Your task to perform on an android device: open app "Google Sheets" (install if not already installed) Image 0: 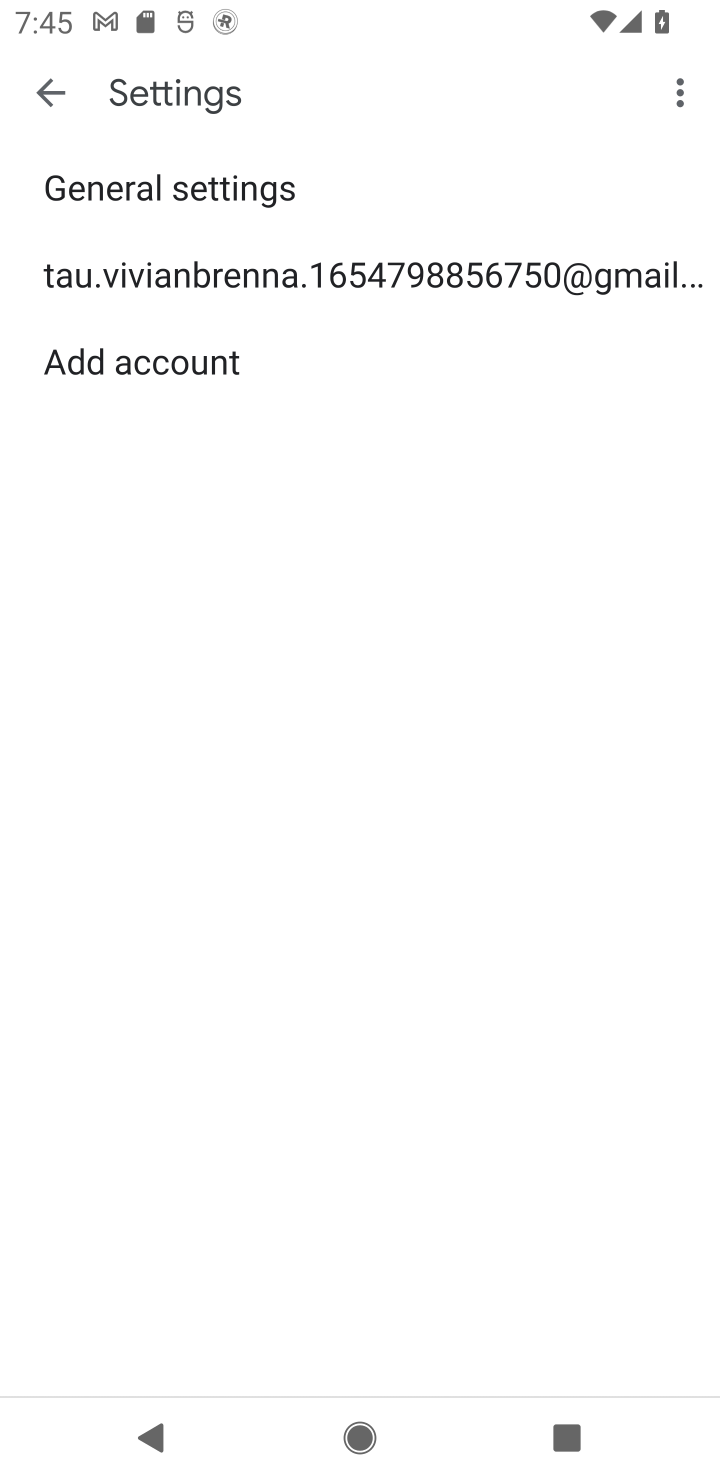
Step 0: press home button
Your task to perform on an android device: open app "Google Sheets" (install if not already installed) Image 1: 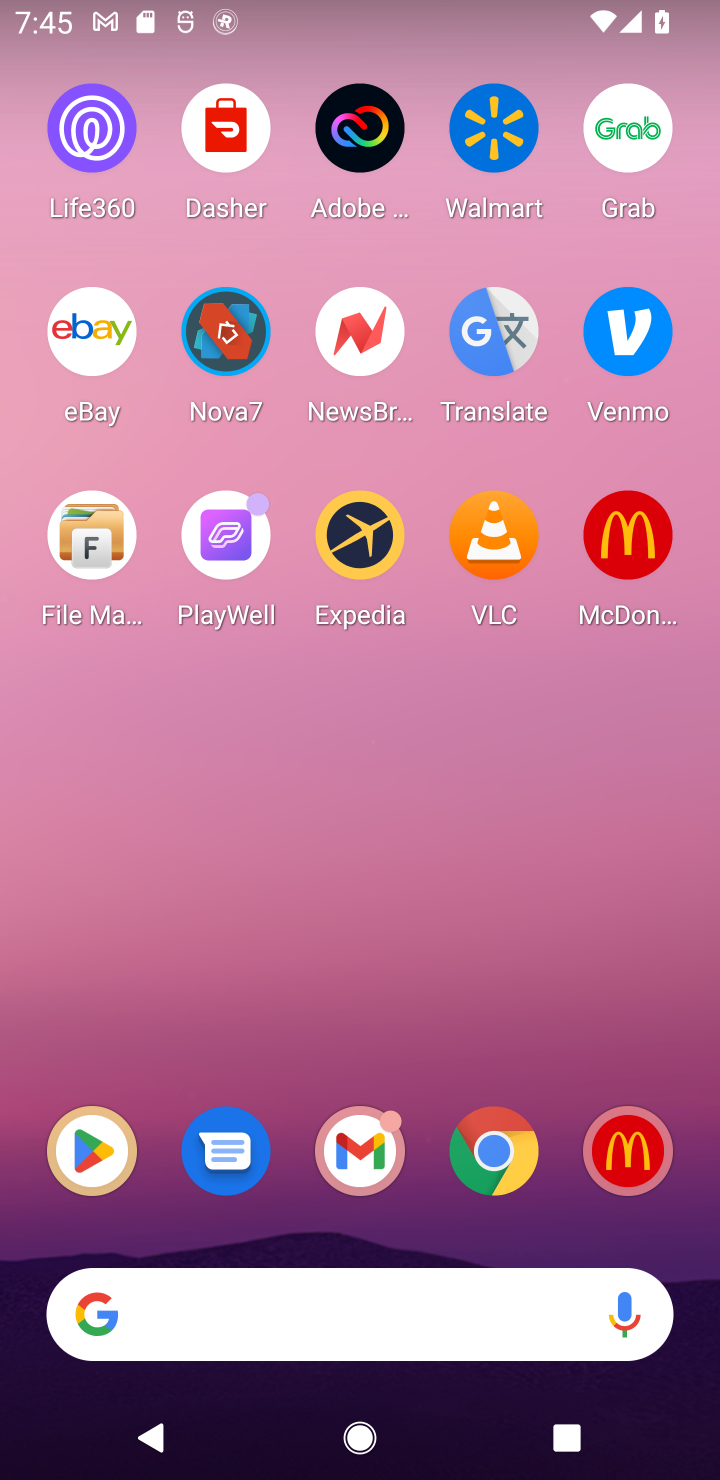
Step 1: click (88, 1138)
Your task to perform on an android device: open app "Google Sheets" (install if not already installed) Image 2: 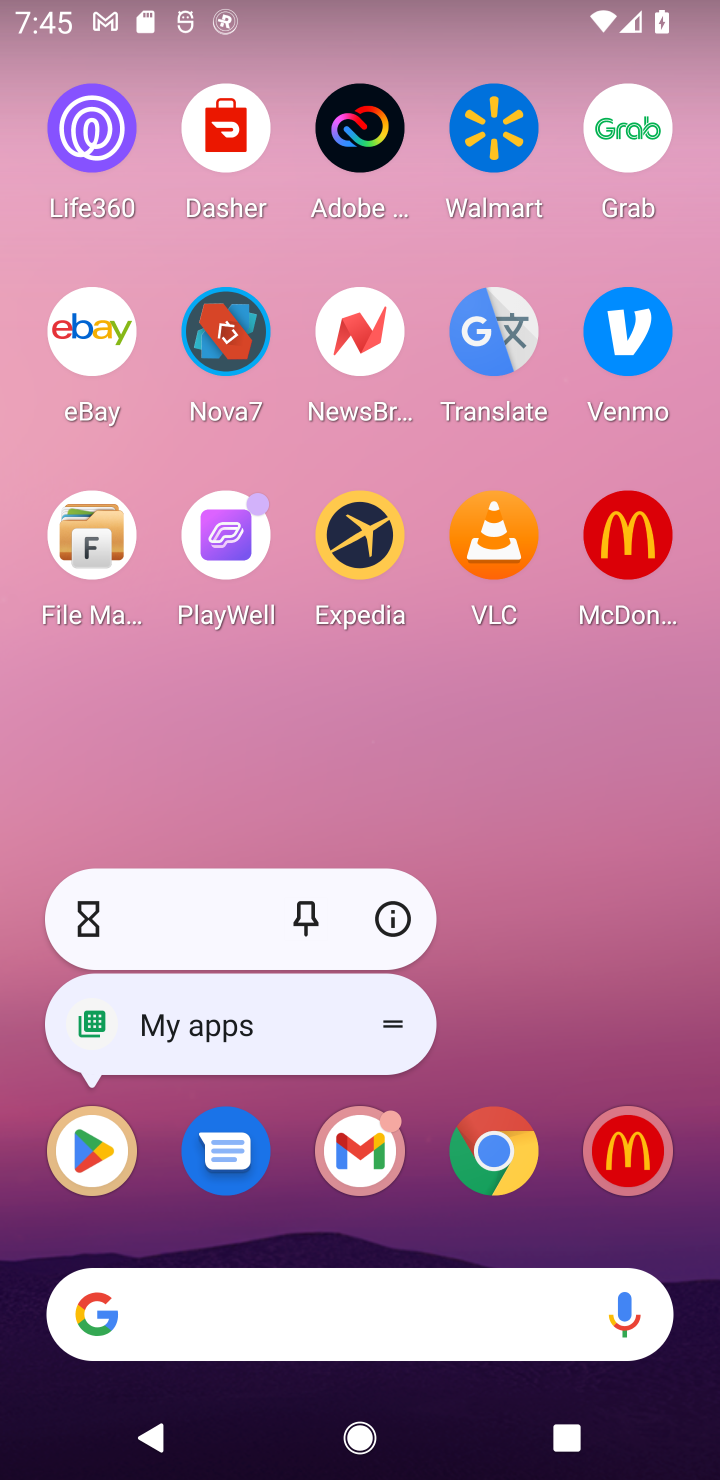
Step 2: click (88, 1138)
Your task to perform on an android device: open app "Google Sheets" (install if not already installed) Image 3: 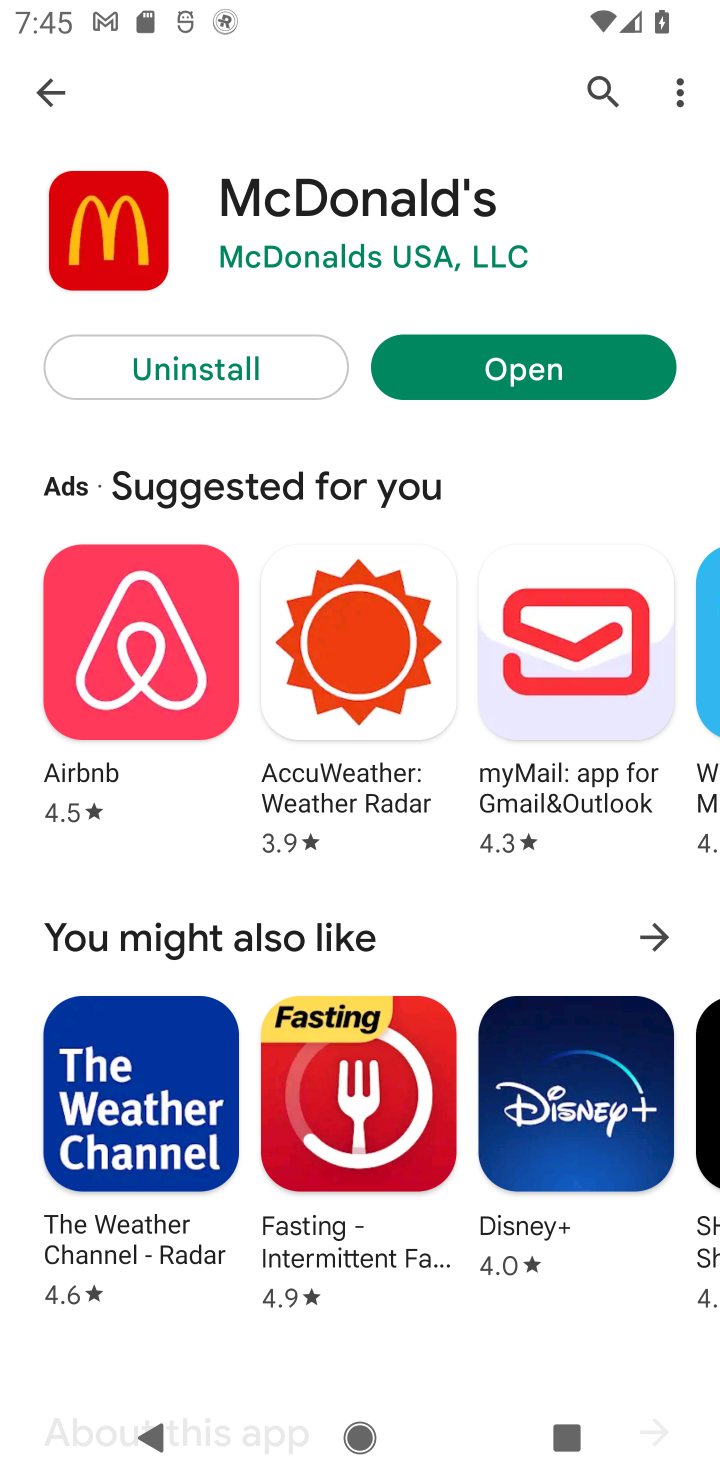
Step 3: click (592, 113)
Your task to perform on an android device: open app "Google Sheets" (install if not already installed) Image 4: 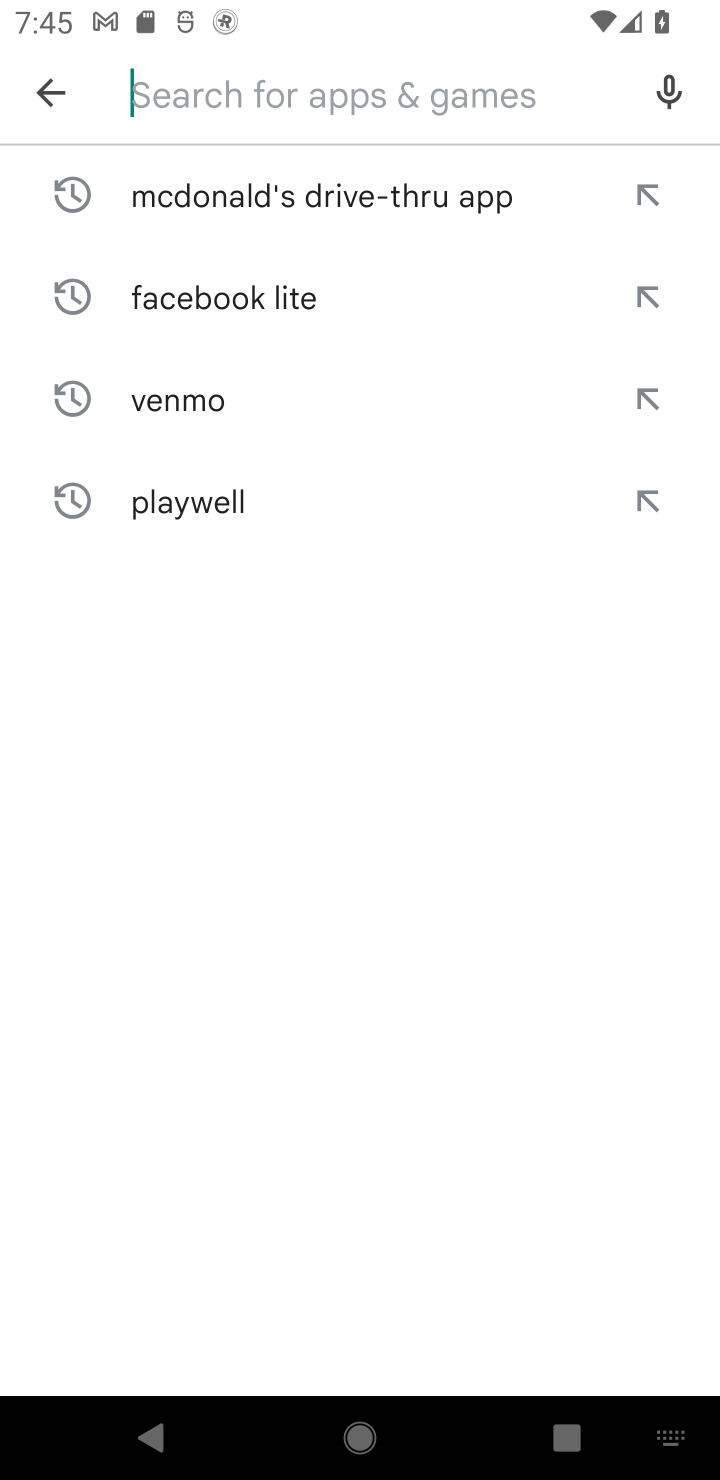
Step 4: type "Google Sheets"
Your task to perform on an android device: open app "Google Sheets" (install if not already installed) Image 5: 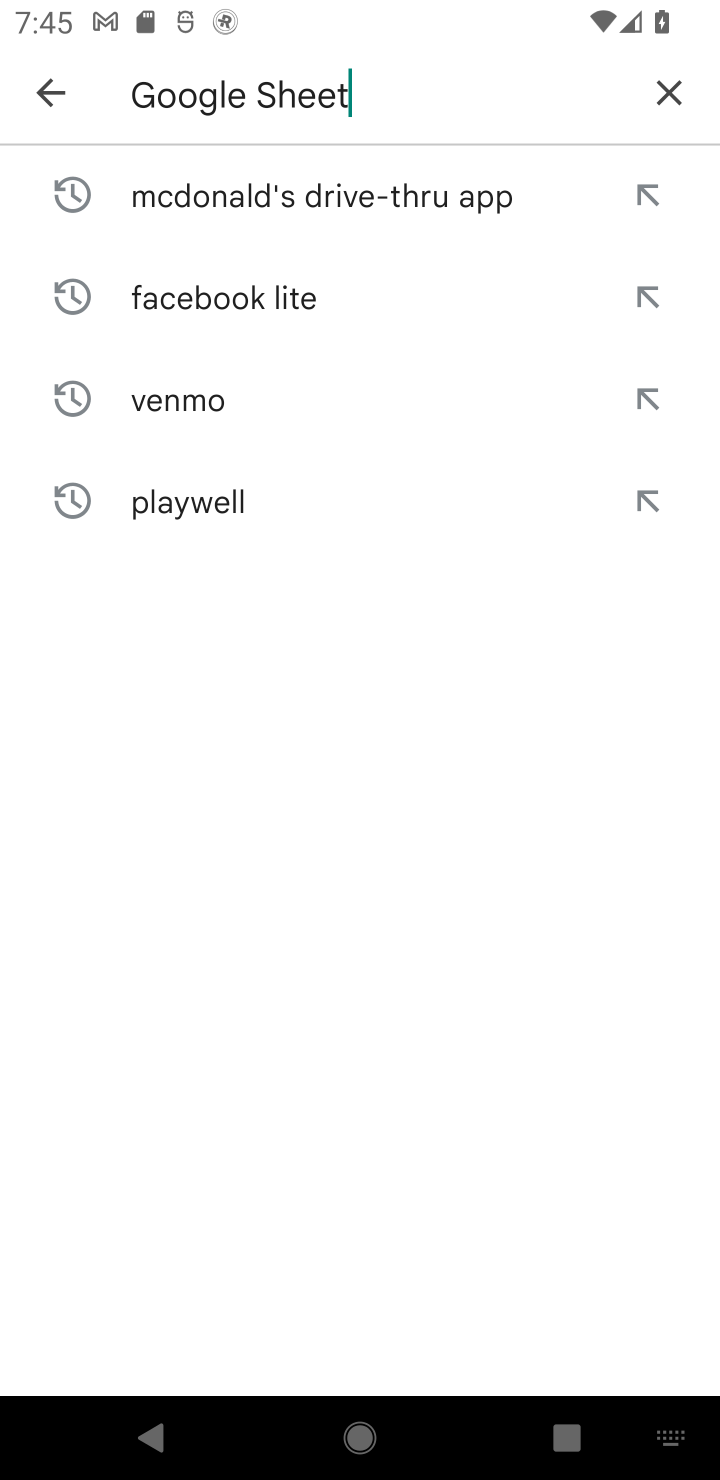
Step 5: type ""
Your task to perform on an android device: open app "Google Sheets" (install if not already installed) Image 6: 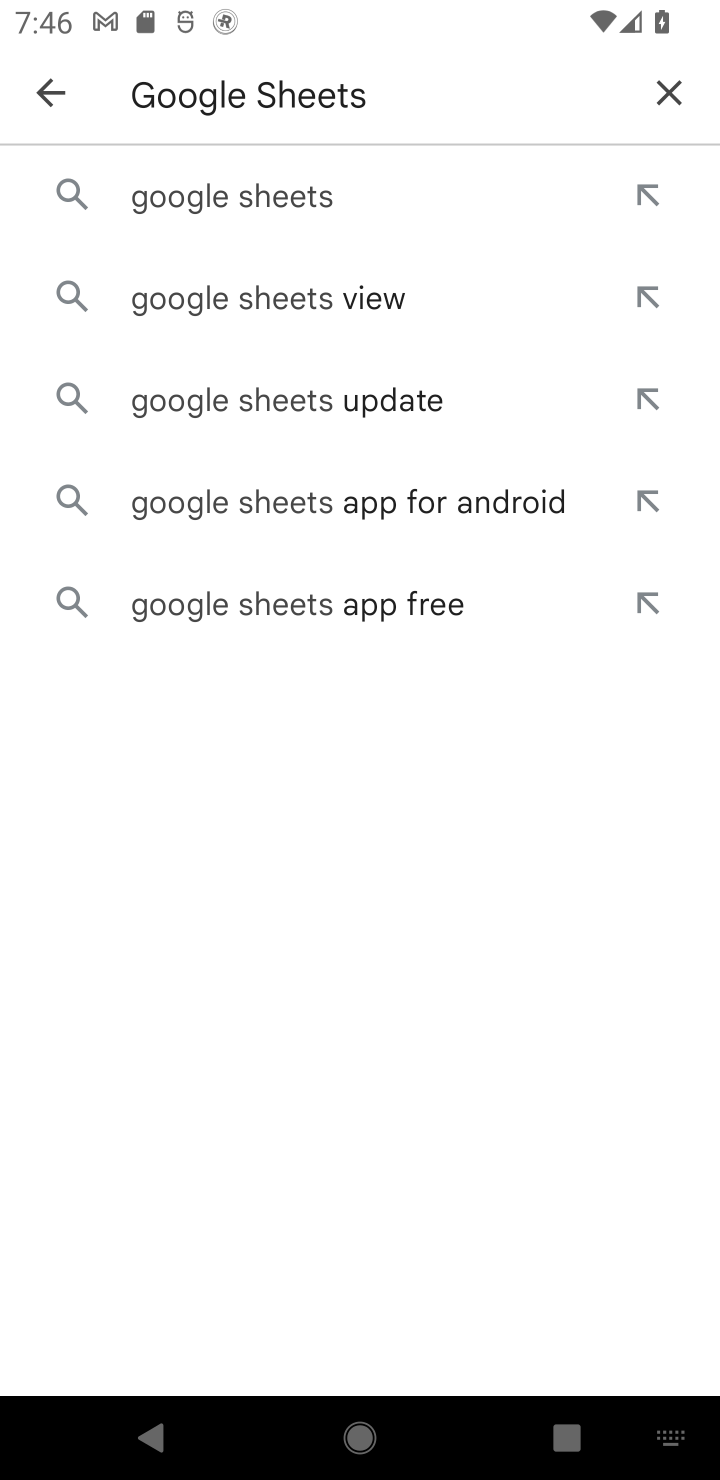
Step 6: click (295, 206)
Your task to perform on an android device: open app "Google Sheets" (install if not already installed) Image 7: 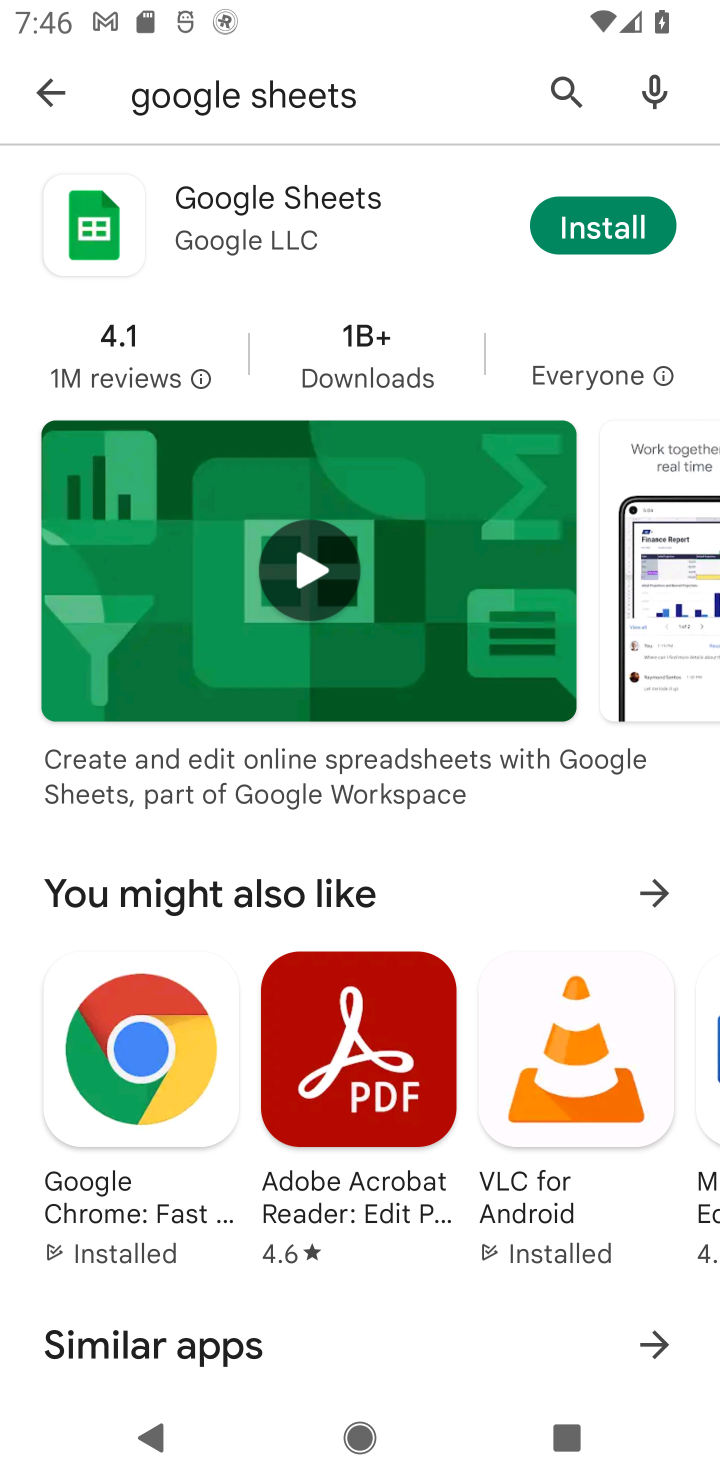
Step 7: click (584, 244)
Your task to perform on an android device: open app "Google Sheets" (install if not already installed) Image 8: 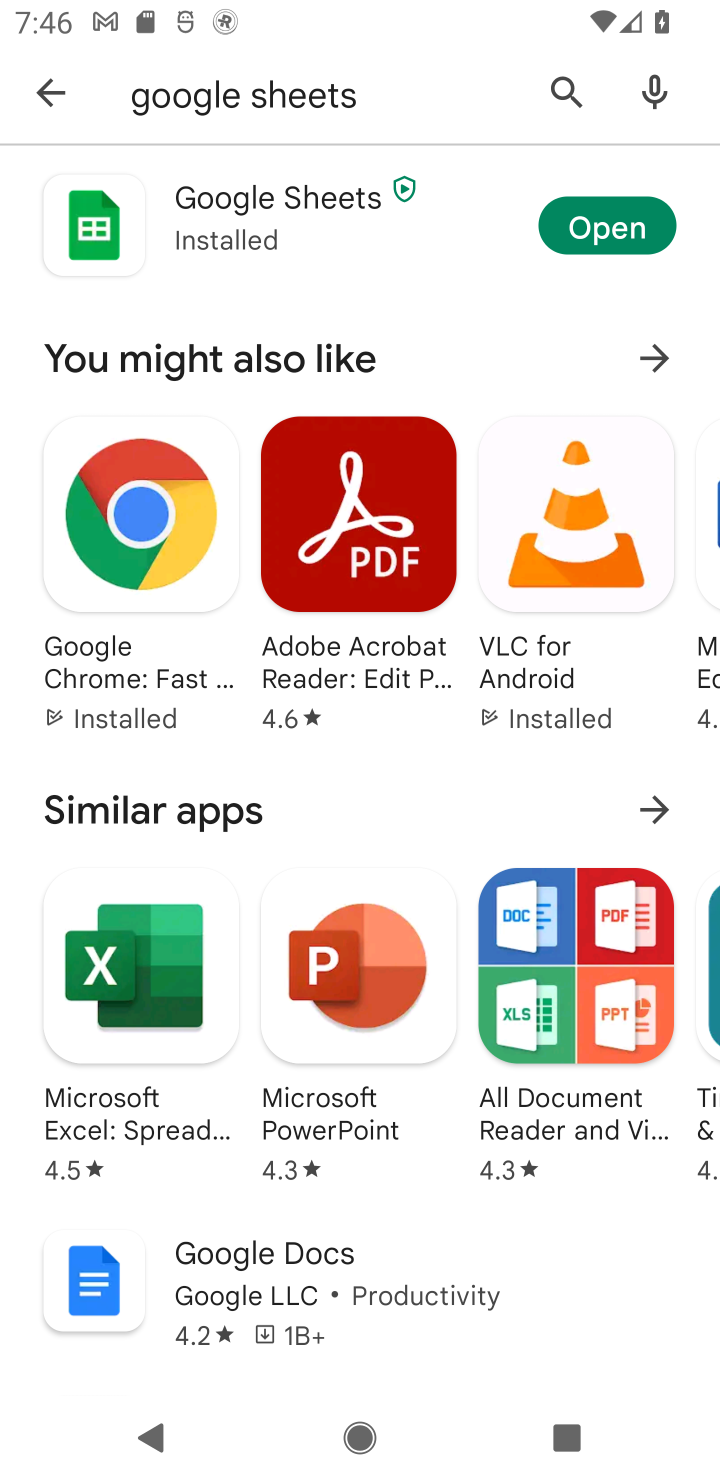
Step 8: click (591, 219)
Your task to perform on an android device: open app "Google Sheets" (install if not already installed) Image 9: 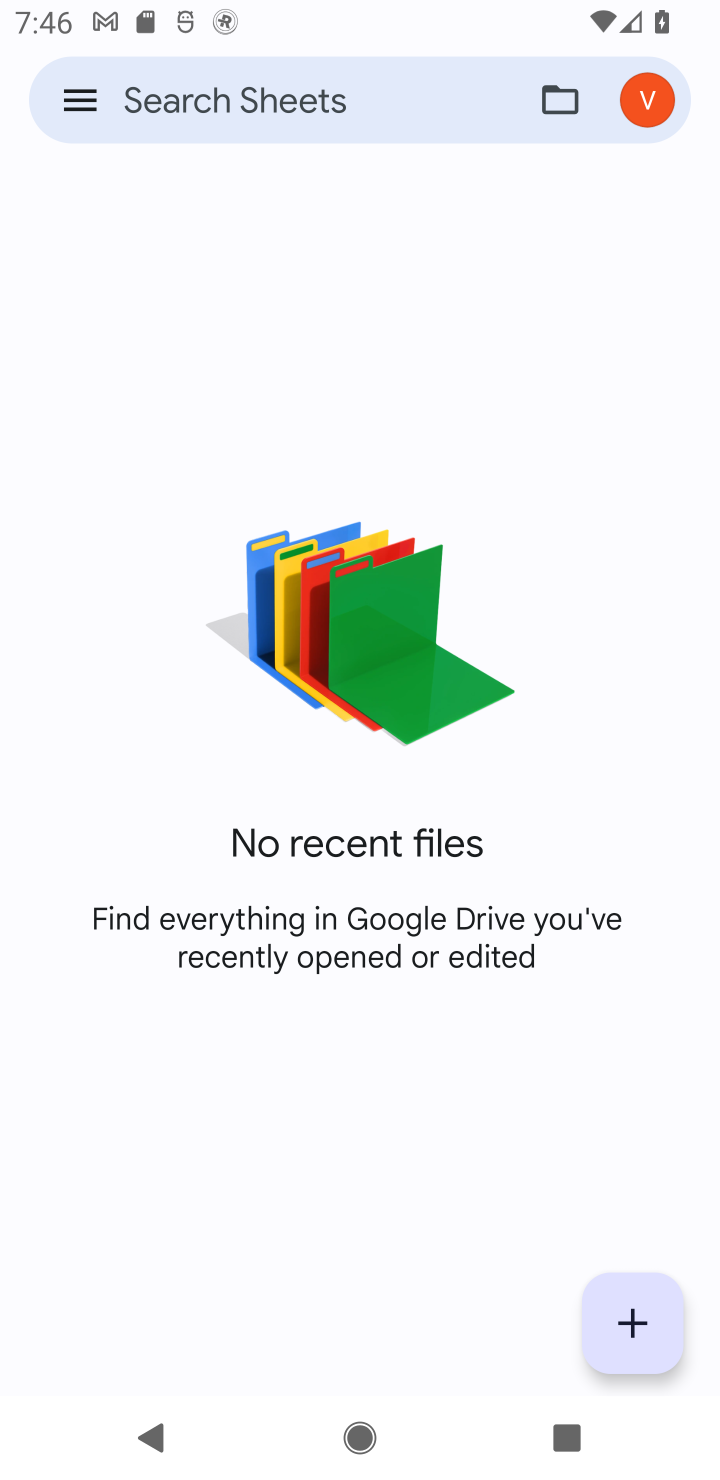
Step 9: task complete